Your task to perform on an android device: Go to Google maps Image 0: 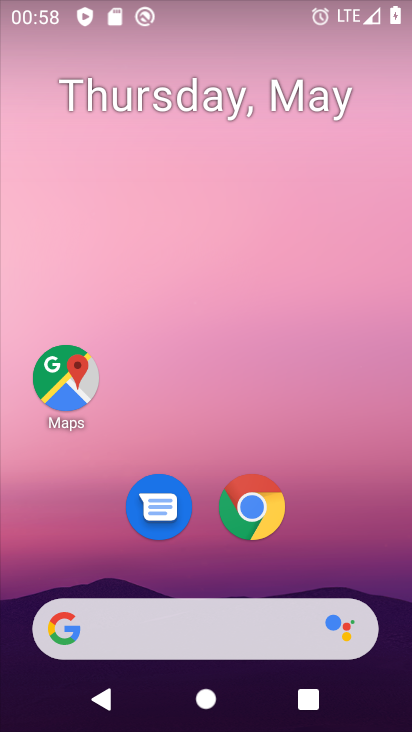
Step 0: click (66, 392)
Your task to perform on an android device: Go to Google maps Image 1: 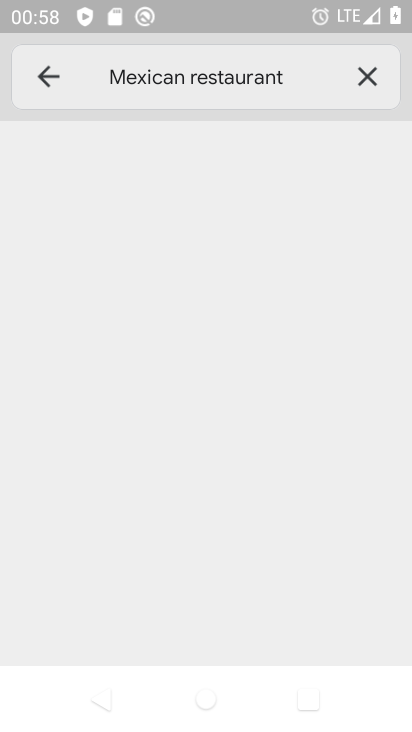
Step 1: click (371, 73)
Your task to perform on an android device: Go to Google maps Image 2: 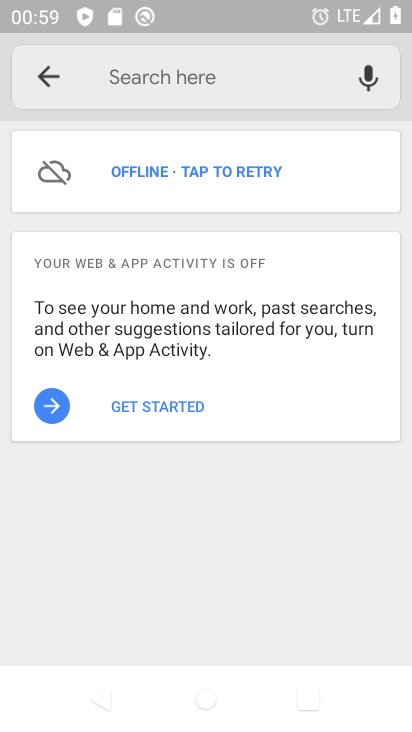
Step 2: task complete